Your task to perform on an android device: see tabs open on other devices in the chrome app Image 0: 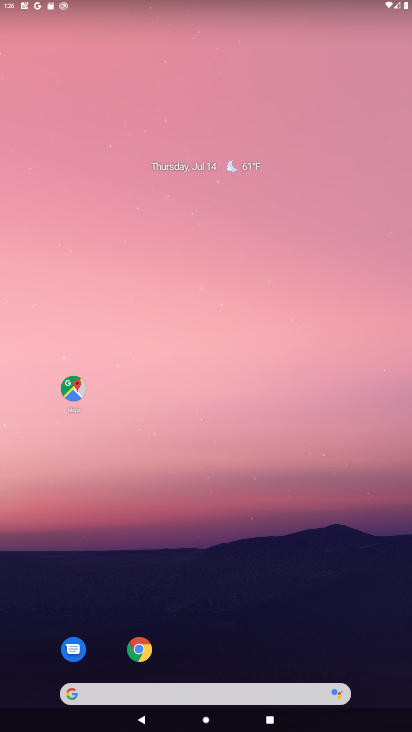
Step 0: drag from (288, 651) to (295, 126)
Your task to perform on an android device: see tabs open on other devices in the chrome app Image 1: 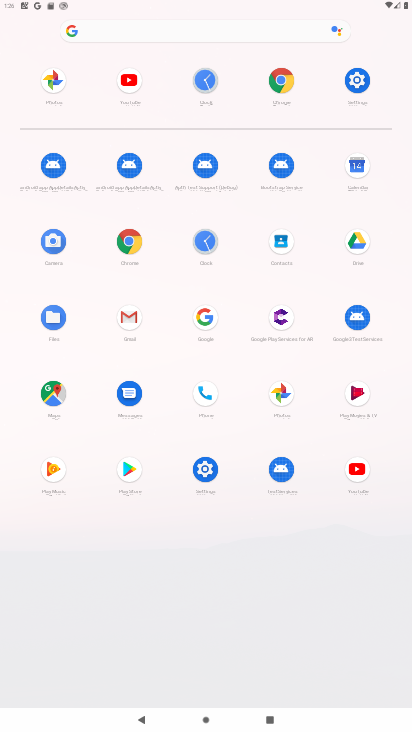
Step 1: click (124, 240)
Your task to perform on an android device: see tabs open on other devices in the chrome app Image 2: 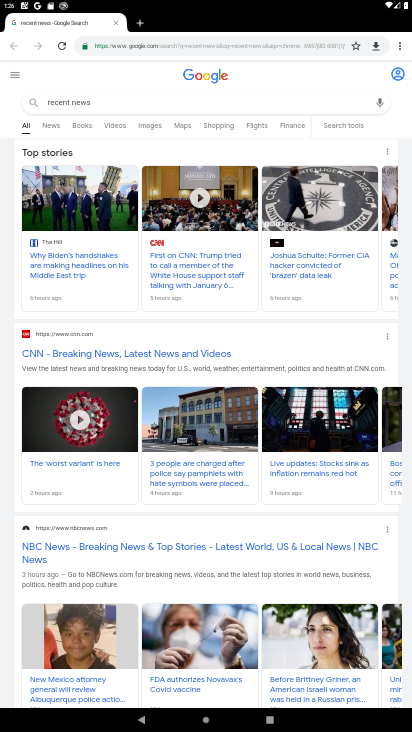
Step 2: task complete